Your task to perform on an android device: toggle wifi Image 0: 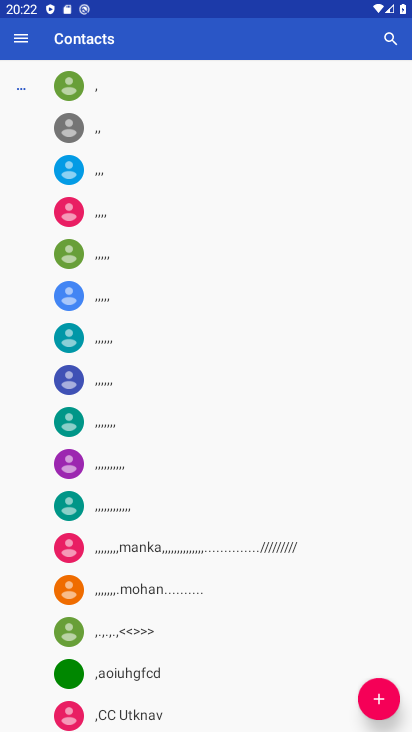
Step 0: press home button
Your task to perform on an android device: toggle wifi Image 1: 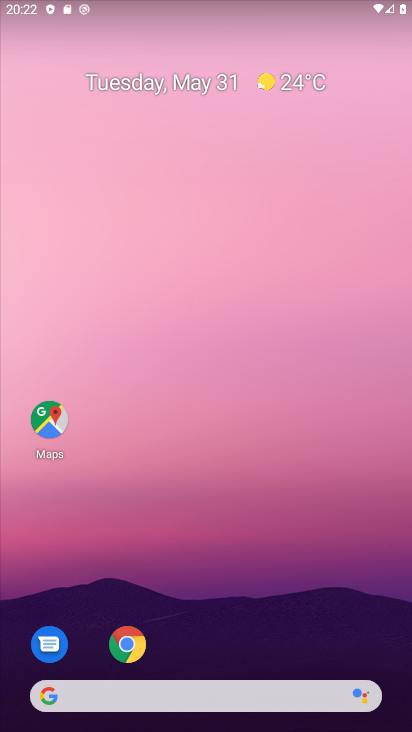
Step 1: drag from (299, 614) to (280, 198)
Your task to perform on an android device: toggle wifi Image 2: 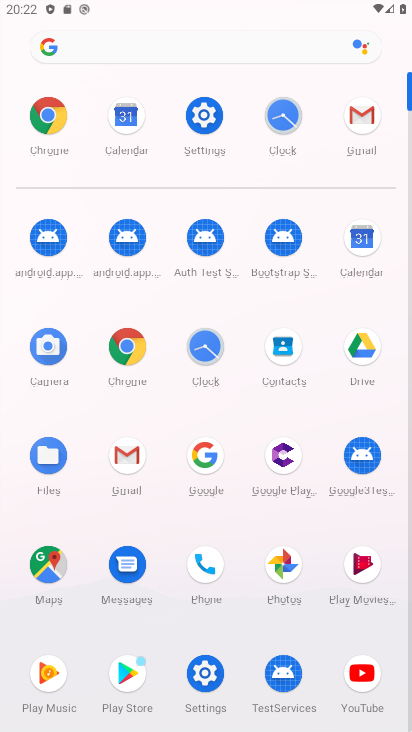
Step 2: click (205, 676)
Your task to perform on an android device: toggle wifi Image 3: 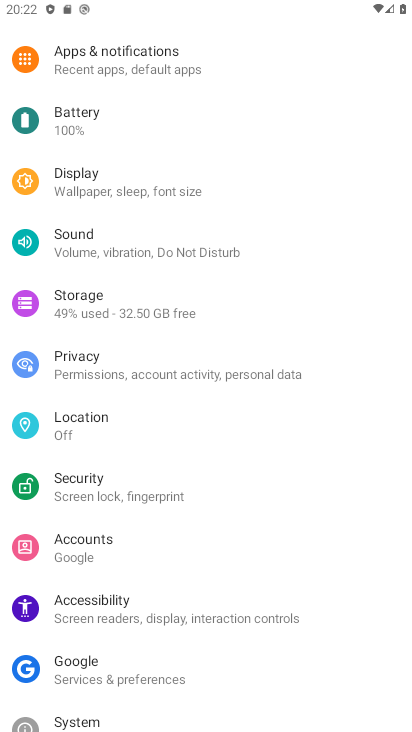
Step 3: drag from (250, 109) to (241, 561)
Your task to perform on an android device: toggle wifi Image 4: 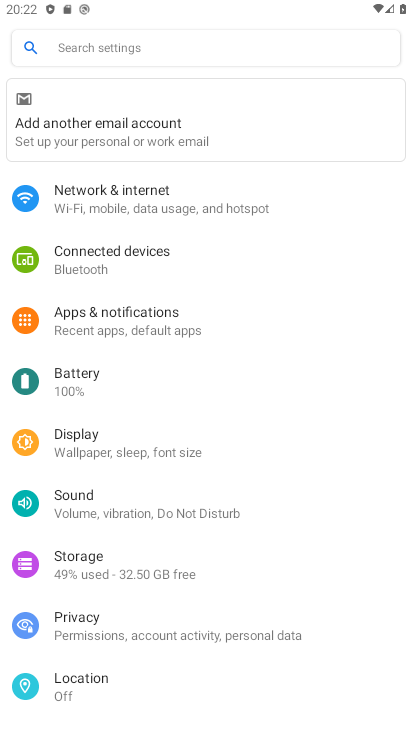
Step 4: click (241, 206)
Your task to perform on an android device: toggle wifi Image 5: 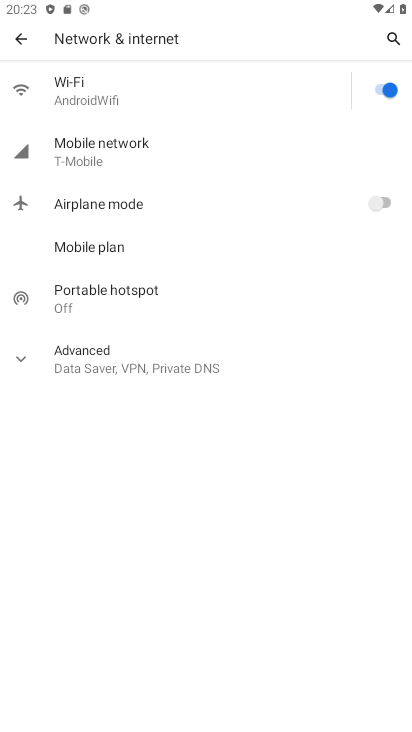
Step 5: click (393, 82)
Your task to perform on an android device: toggle wifi Image 6: 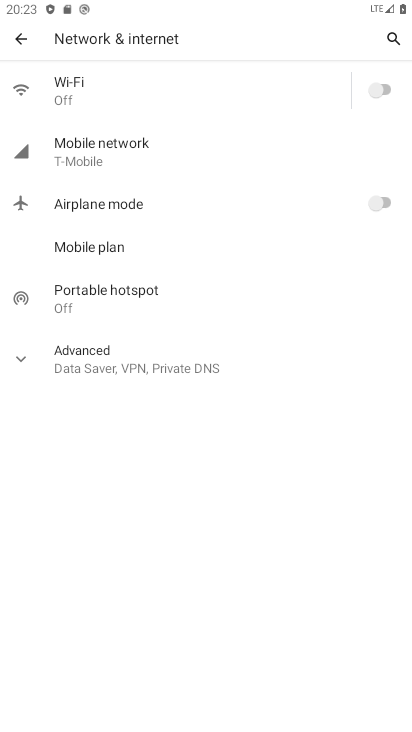
Step 6: task complete